Your task to perform on an android device: Go to ESPN.com Image 0: 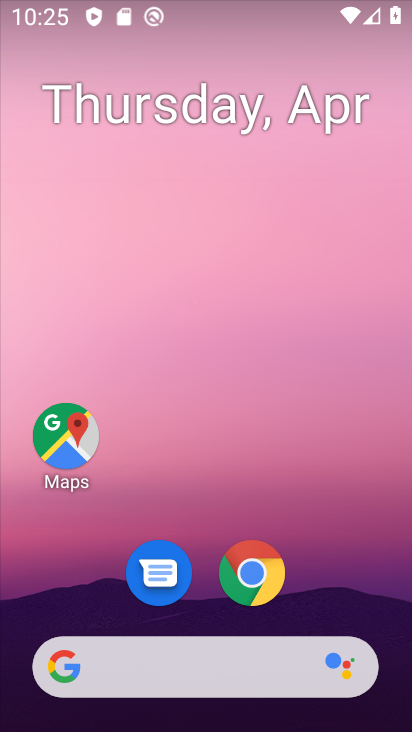
Step 0: click (256, 589)
Your task to perform on an android device: Go to ESPN.com Image 1: 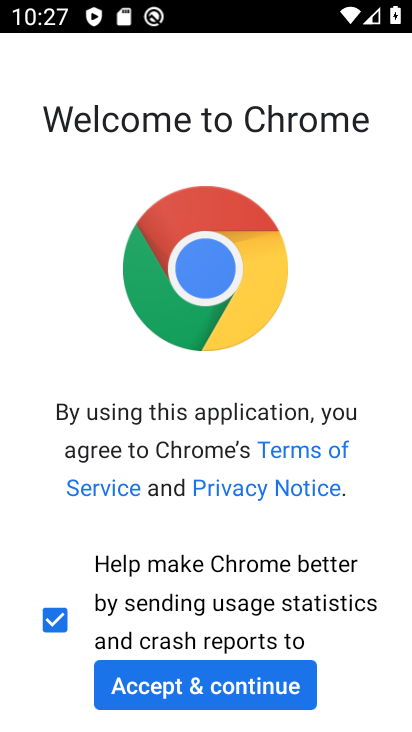
Step 1: click (243, 701)
Your task to perform on an android device: Go to ESPN.com Image 2: 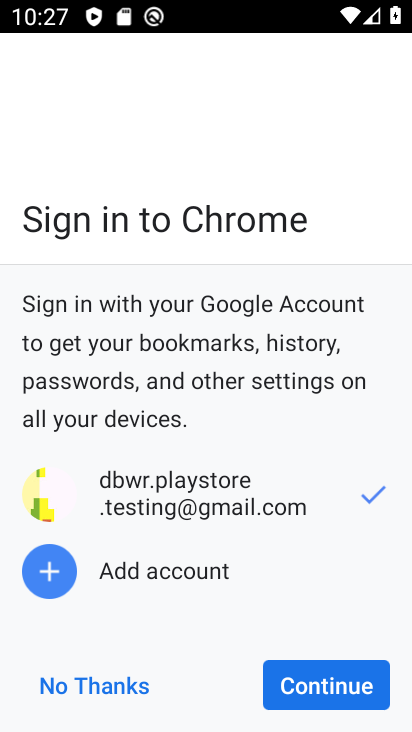
Step 2: click (324, 708)
Your task to perform on an android device: Go to ESPN.com Image 3: 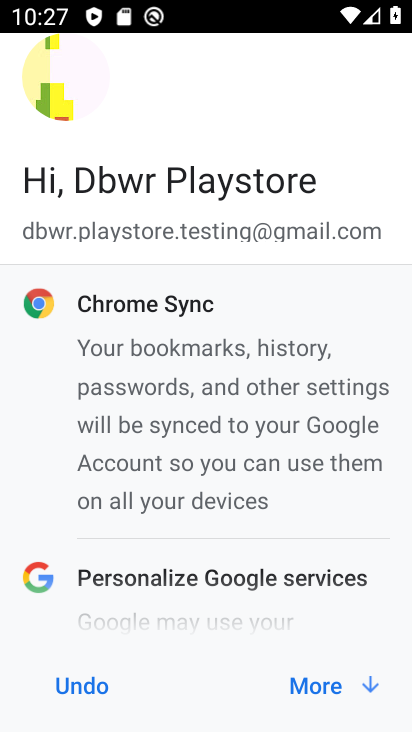
Step 3: click (333, 685)
Your task to perform on an android device: Go to ESPN.com Image 4: 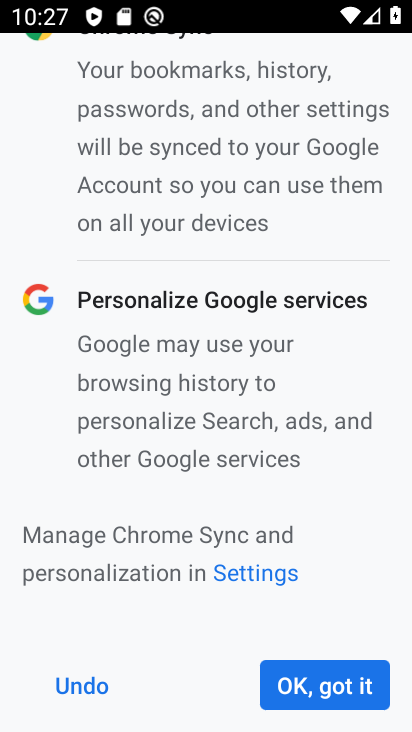
Step 4: click (333, 685)
Your task to perform on an android device: Go to ESPN.com Image 5: 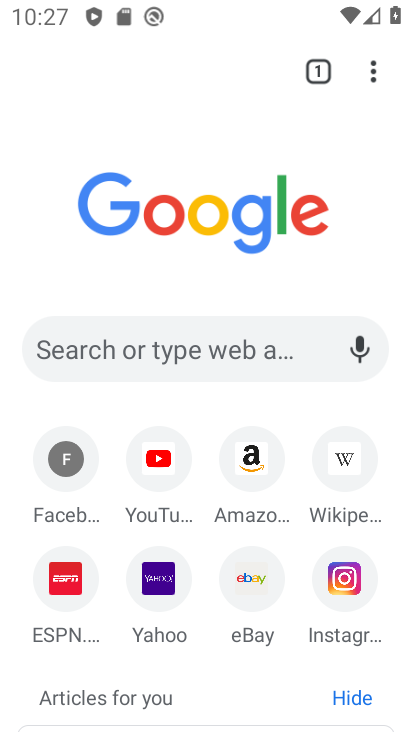
Step 5: click (72, 579)
Your task to perform on an android device: Go to ESPN.com Image 6: 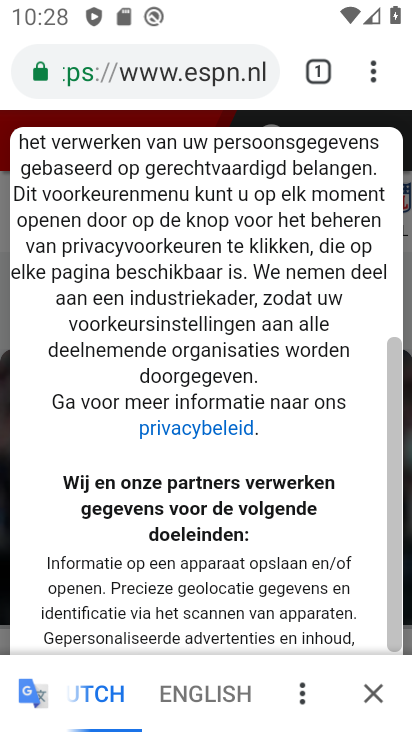
Step 6: task complete